Your task to perform on an android device: turn on notifications settings in the gmail app Image 0: 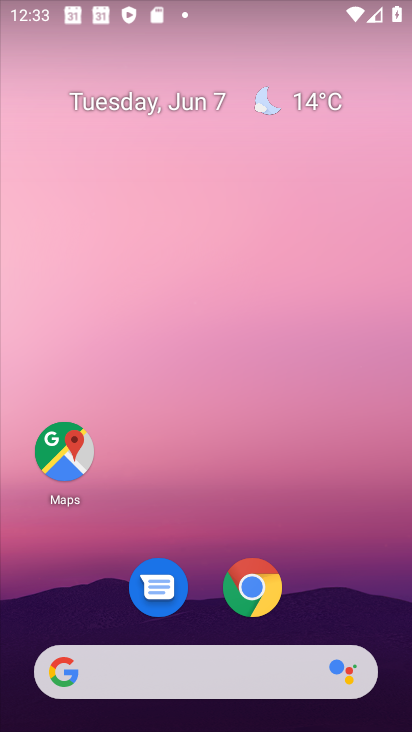
Step 0: drag from (207, 629) to (196, 112)
Your task to perform on an android device: turn on notifications settings in the gmail app Image 1: 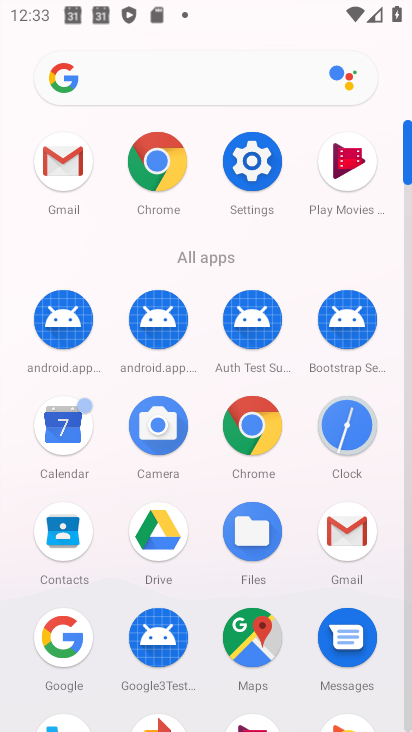
Step 1: click (365, 546)
Your task to perform on an android device: turn on notifications settings in the gmail app Image 2: 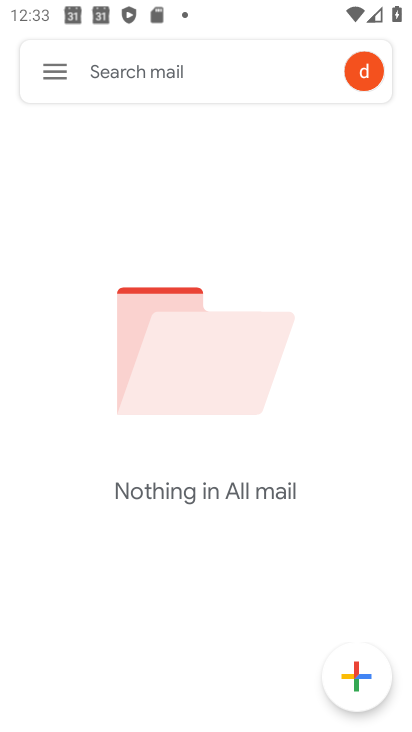
Step 2: click (60, 80)
Your task to perform on an android device: turn on notifications settings in the gmail app Image 3: 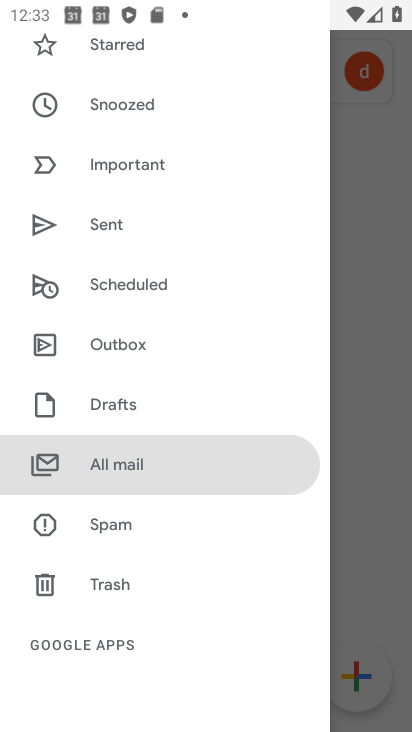
Step 3: drag from (163, 573) to (271, 131)
Your task to perform on an android device: turn on notifications settings in the gmail app Image 4: 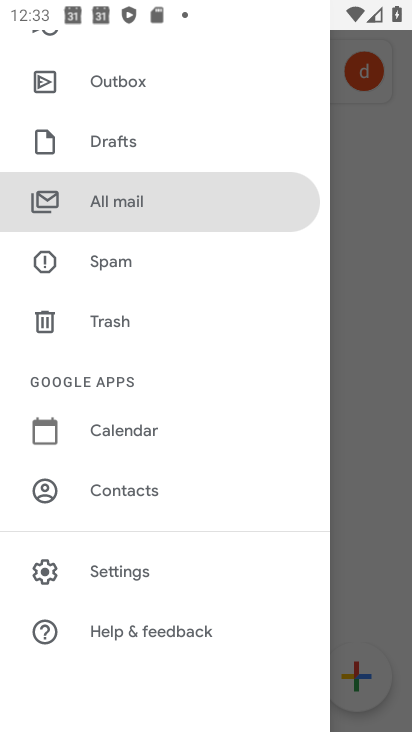
Step 4: click (150, 560)
Your task to perform on an android device: turn on notifications settings in the gmail app Image 5: 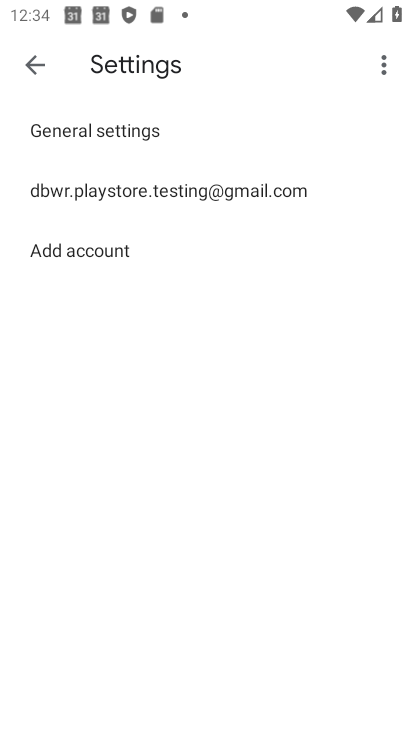
Step 5: click (147, 133)
Your task to perform on an android device: turn on notifications settings in the gmail app Image 6: 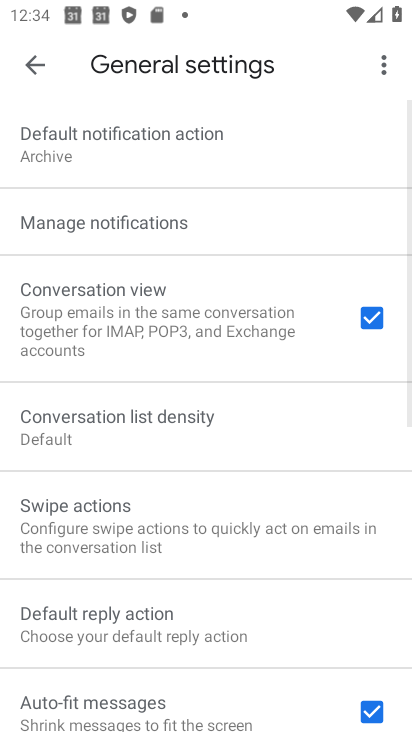
Step 6: click (159, 222)
Your task to perform on an android device: turn on notifications settings in the gmail app Image 7: 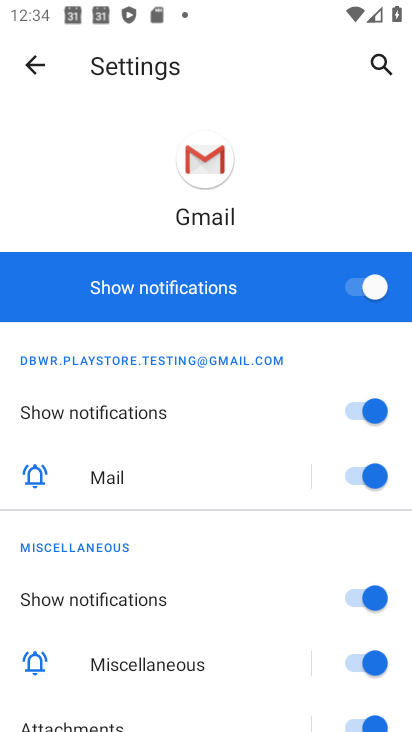
Step 7: task complete